Your task to perform on an android device: Open Google Maps Image 0: 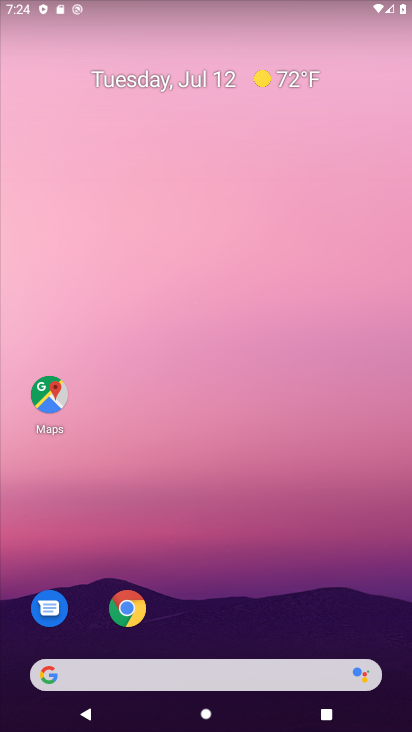
Step 0: drag from (382, 605) to (411, 280)
Your task to perform on an android device: Open Google Maps Image 1: 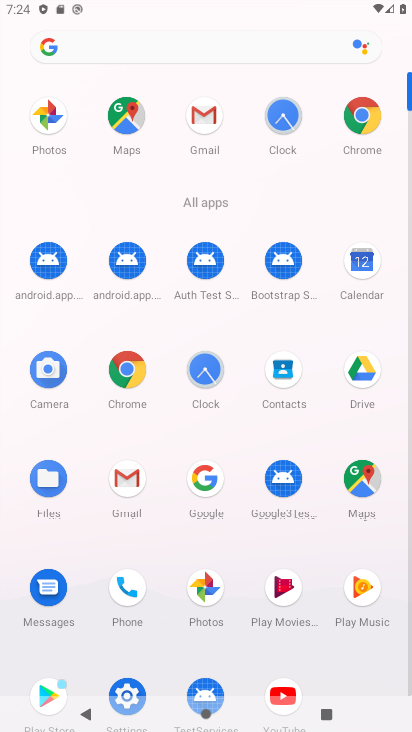
Step 1: click (356, 478)
Your task to perform on an android device: Open Google Maps Image 2: 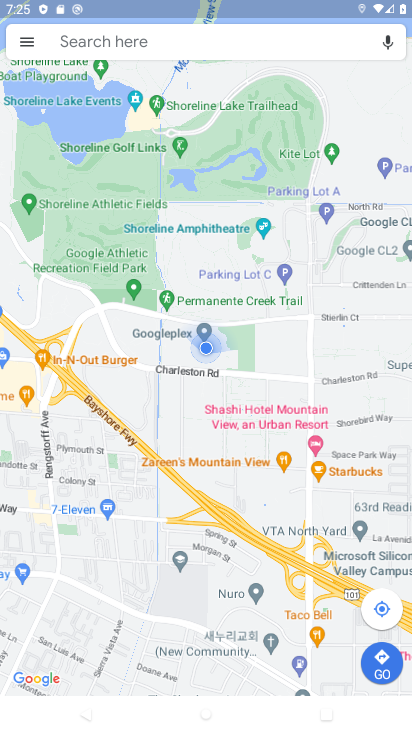
Step 2: task complete